Your task to perform on an android device: turn pop-ups on in chrome Image 0: 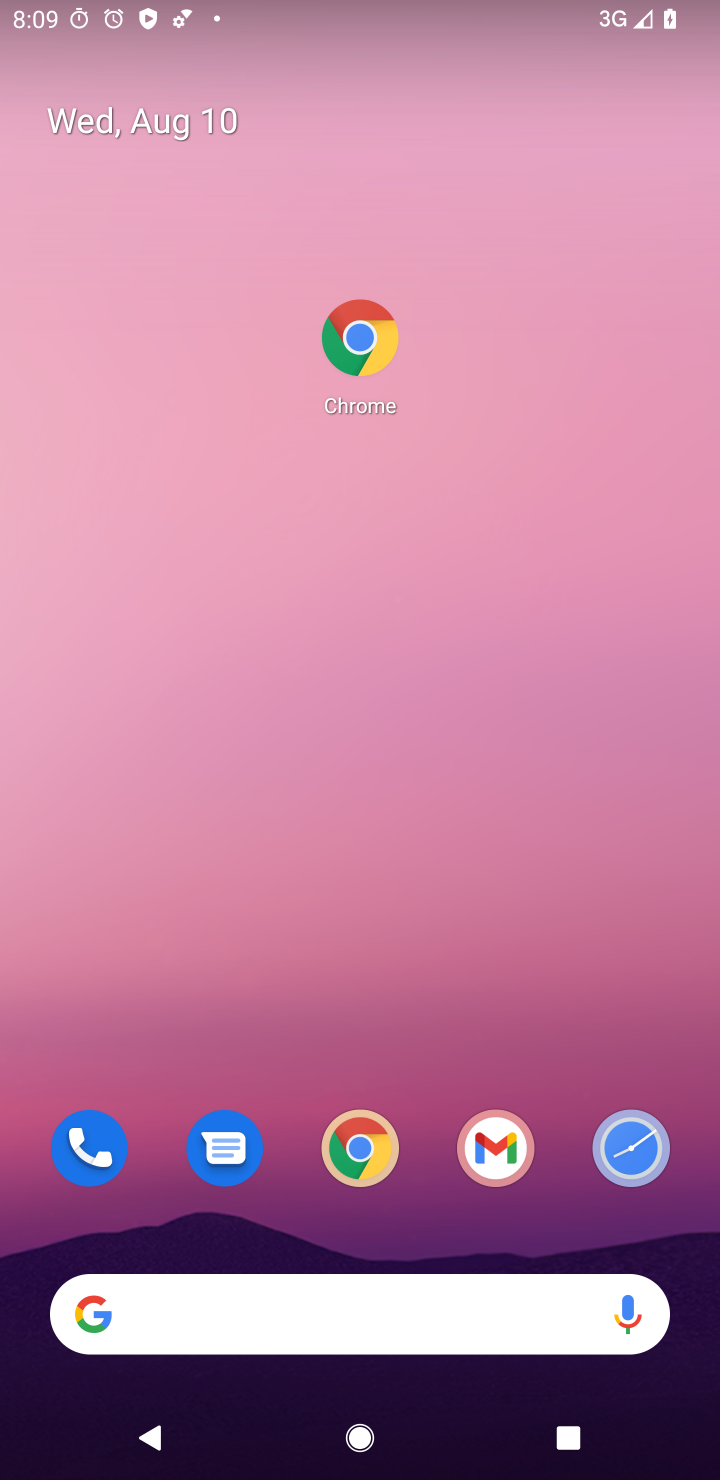
Step 0: click (362, 1169)
Your task to perform on an android device: turn pop-ups on in chrome Image 1: 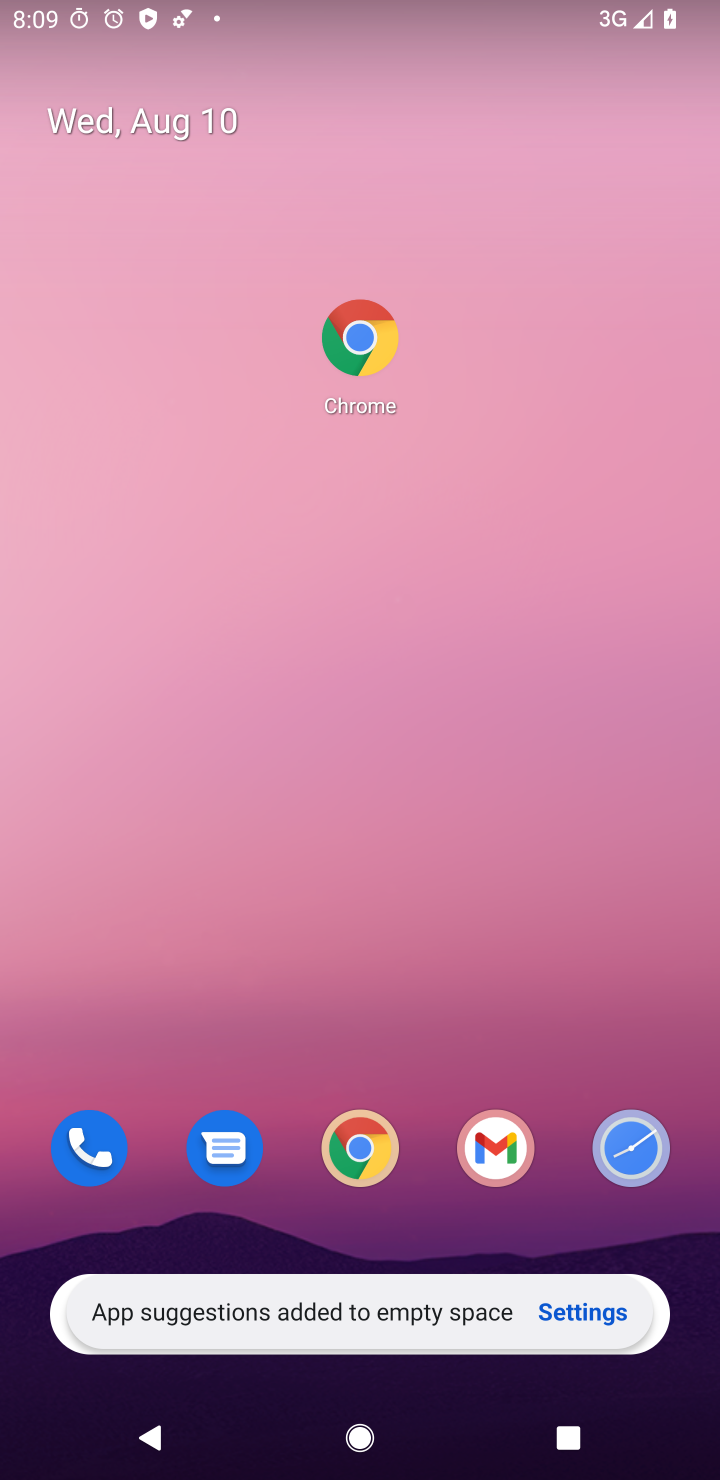
Step 1: click (362, 1169)
Your task to perform on an android device: turn pop-ups on in chrome Image 2: 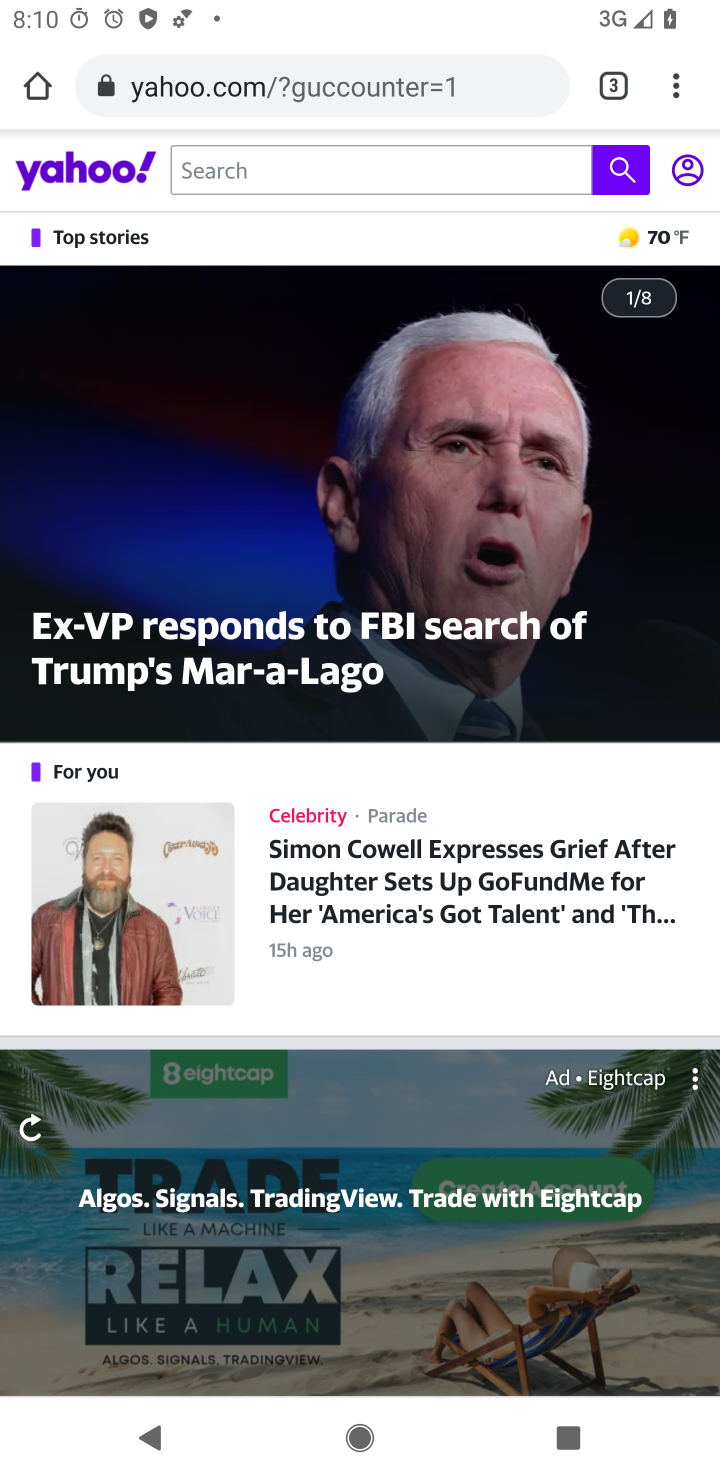
Step 2: click (680, 79)
Your task to perform on an android device: turn pop-ups on in chrome Image 3: 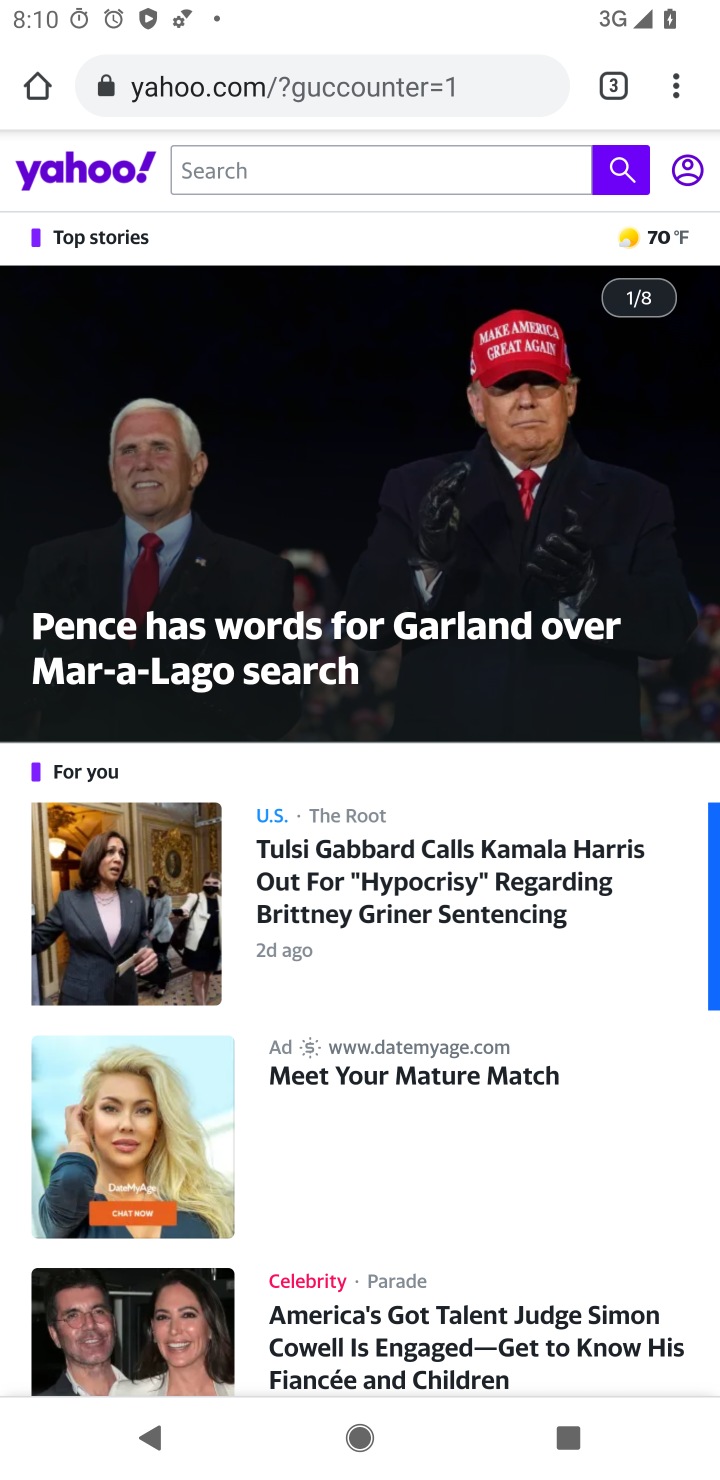
Step 3: click (680, 79)
Your task to perform on an android device: turn pop-ups on in chrome Image 4: 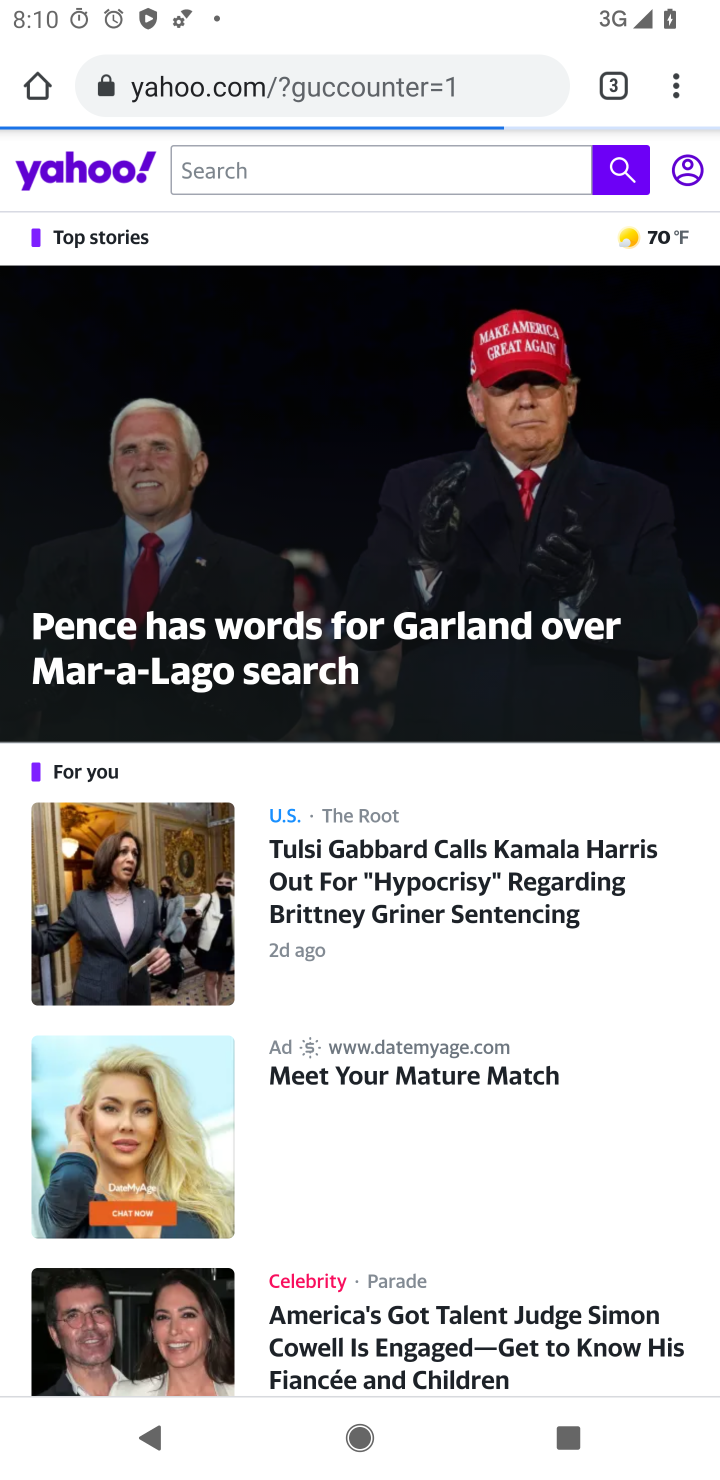
Step 4: task complete